Your task to perform on an android device: create a new album in the google photos Image 0: 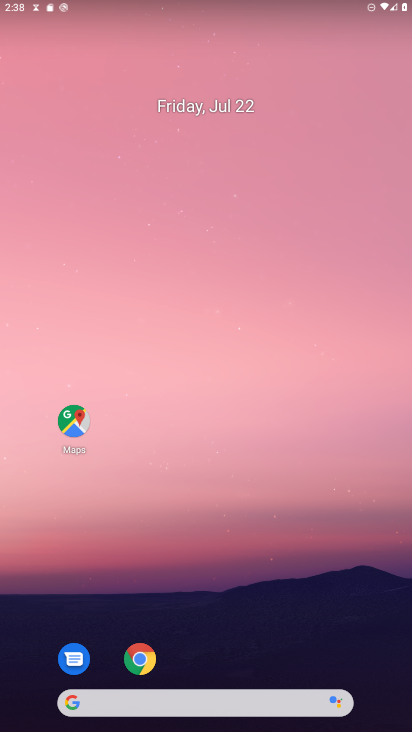
Step 0: click (229, 2)
Your task to perform on an android device: create a new album in the google photos Image 1: 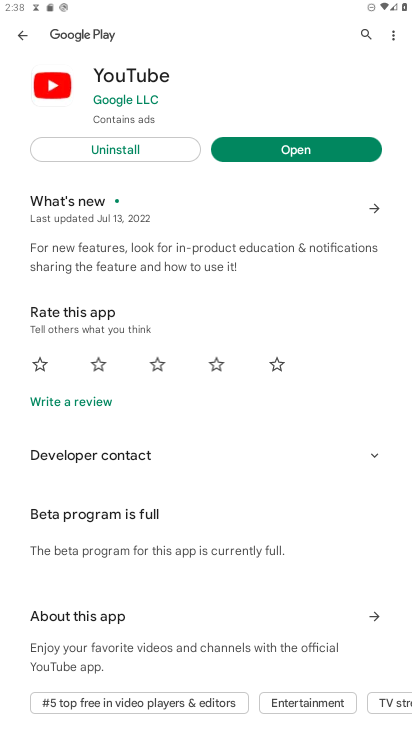
Step 1: press home button
Your task to perform on an android device: create a new album in the google photos Image 2: 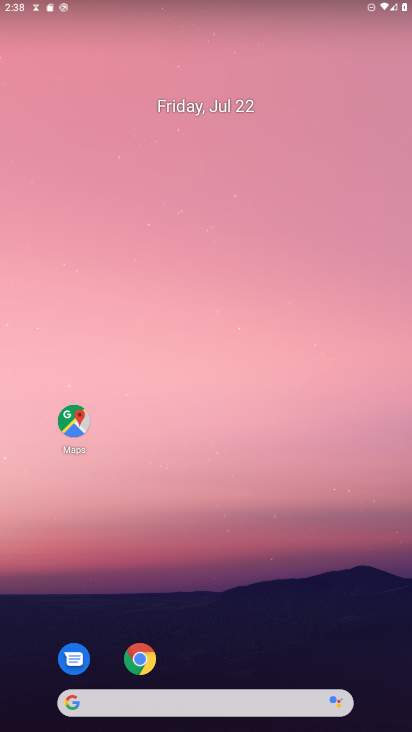
Step 2: drag from (278, 545) to (87, 27)
Your task to perform on an android device: create a new album in the google photos Image 3: 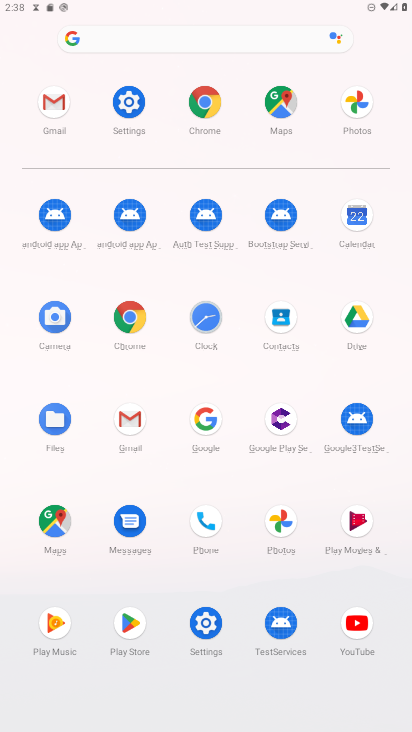
Step 3: click (285, 528)
Your task to perform on an android device: create a new album in the google photos Image 4: 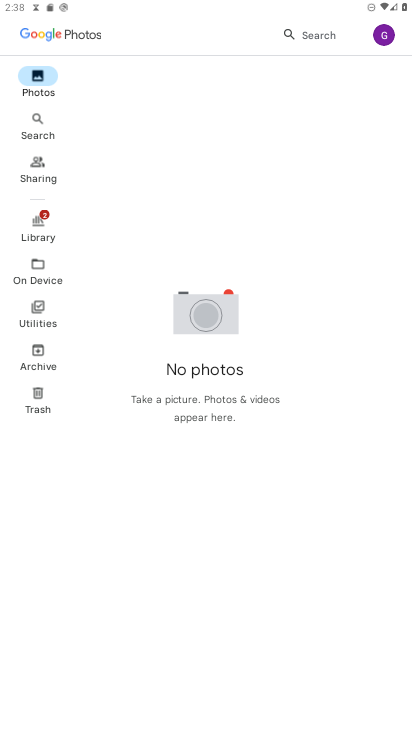
Step 4: click (38, 93)
Your task to perform on an android device: create a new album in the google photos Image 5: 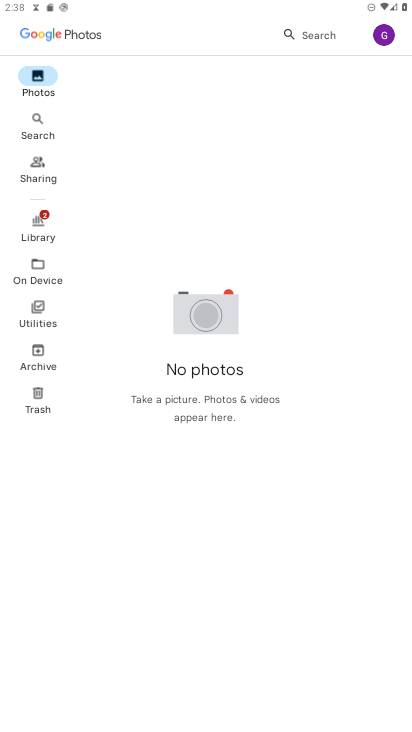
Step 5: click (40, 220)
Your task to perform on an android device: create a new album in the google photos Image 6: 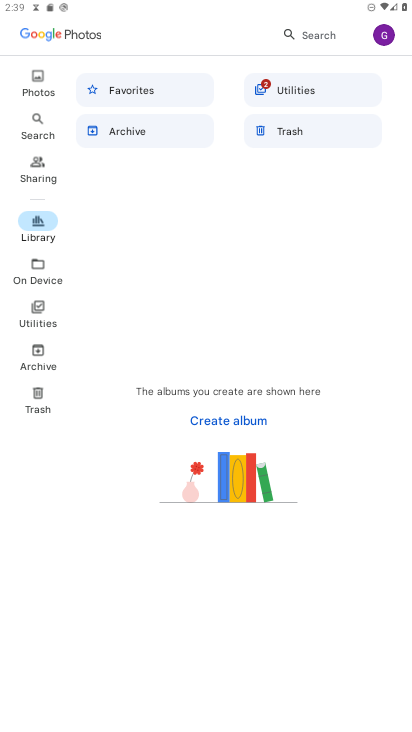
Step 6: task complete